Your task to perform on an android device: Show me recent news Image 0: 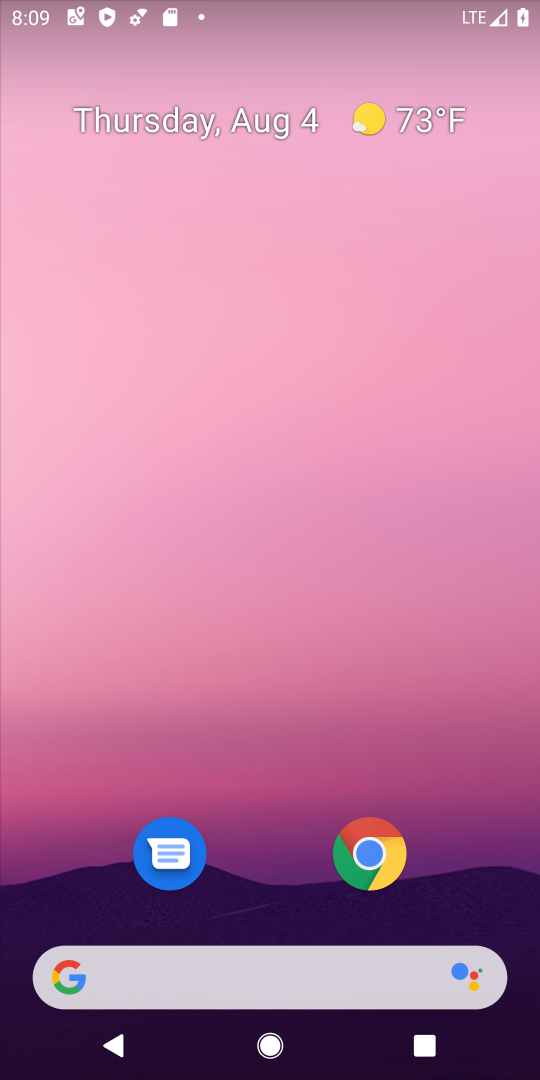
Step 0: drag from (232, 869) to (326, 246)
Your task to perform on an android device: Show me recent news Image 1: 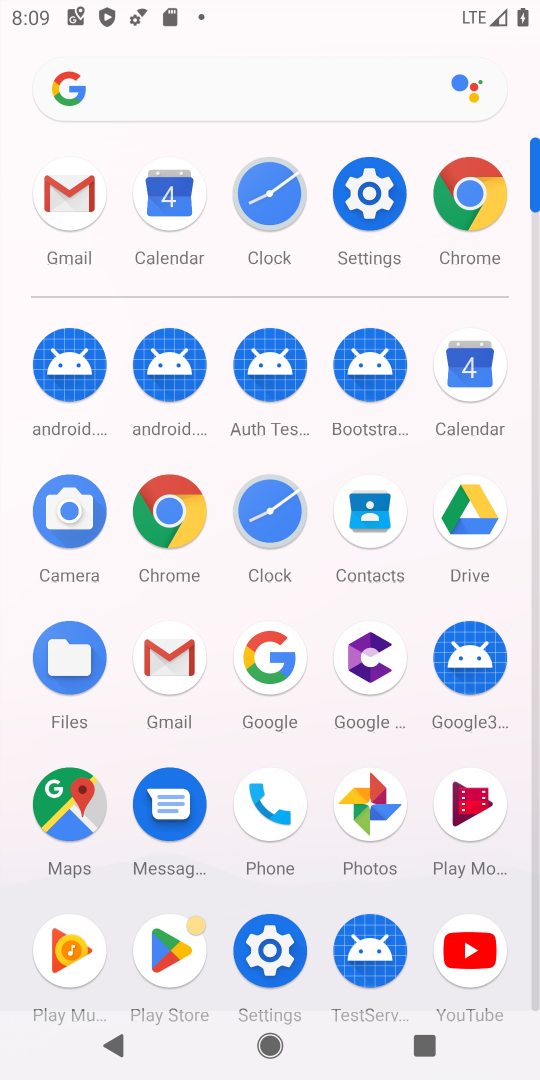
Step 1: click (264, 649)
Your task to perform on an android device: Show me recent news Image 2: 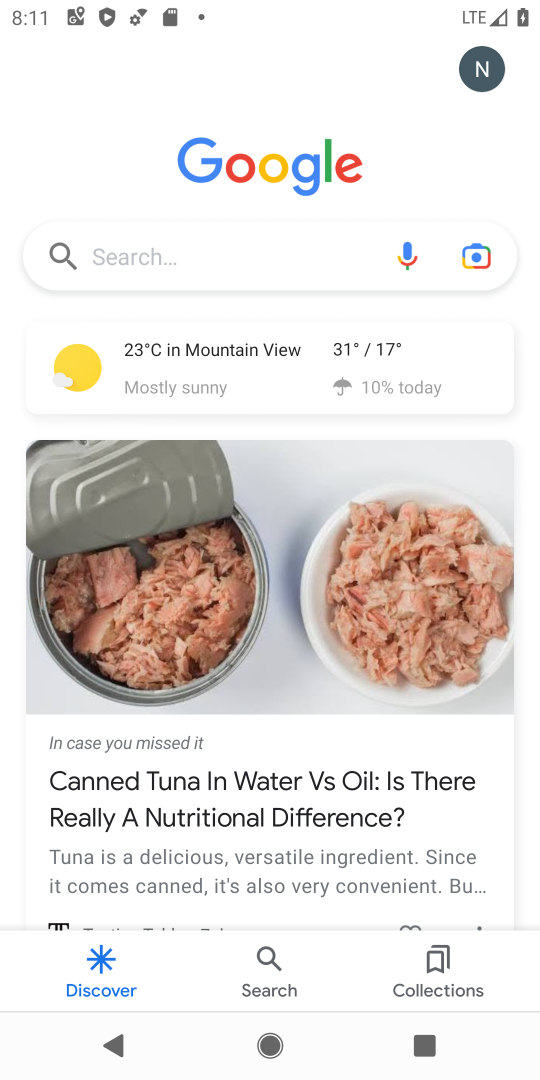
Step 2: click (146, 260)
Your task to perform on an android device: Show me recent news Image 3: 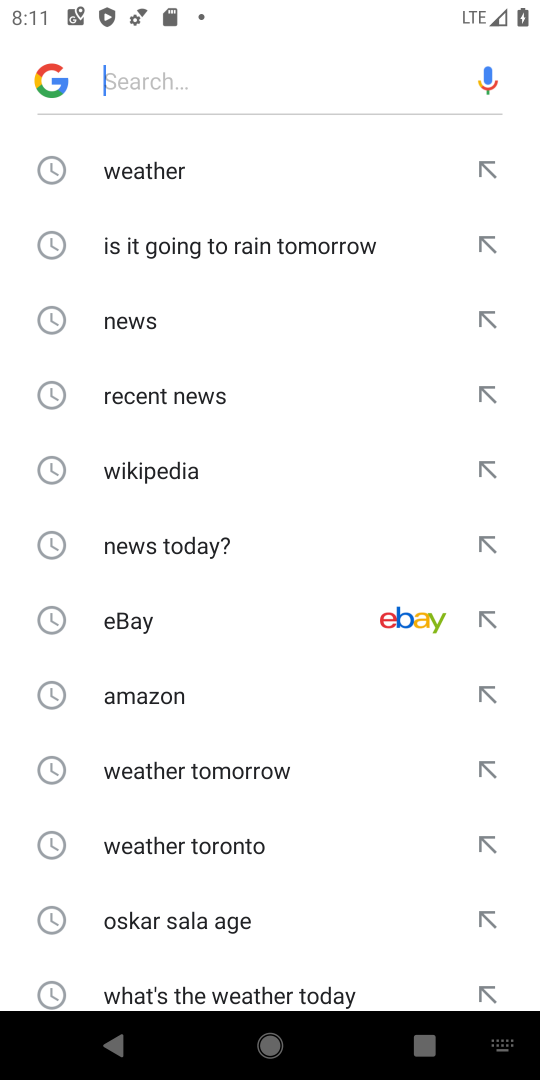
Step 3: click (175, 413)
Your task to perform on an android device: Show me recent news Image 4: 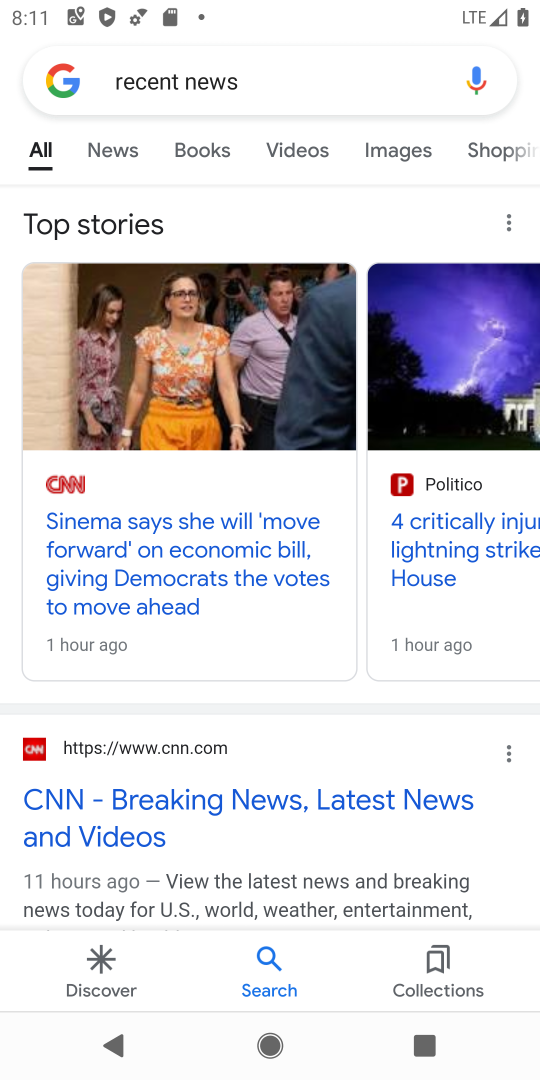
Step 4: task complete